Your task to perform on an android device: turn off notifications settings in the gmail app Image 0: 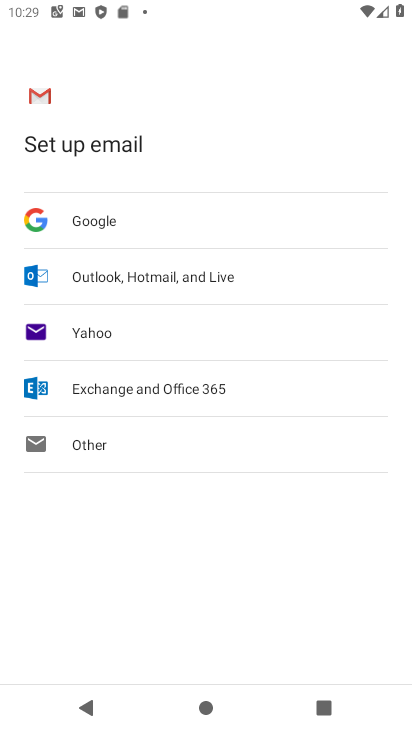
Step 0: press back button
Your task to perform on an android device: turn off notifications settings in the gmail app Image 1: 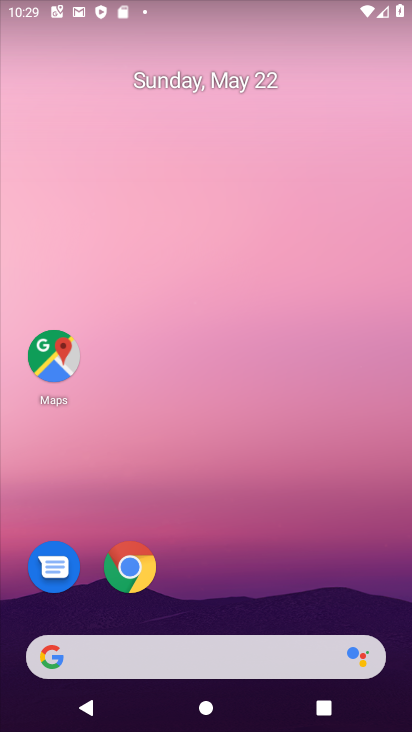
Step 1: drag from (204, 546) to (198, 41)
Your task to perform on an android device: turn off notifications settings in the gmail app Image 2: 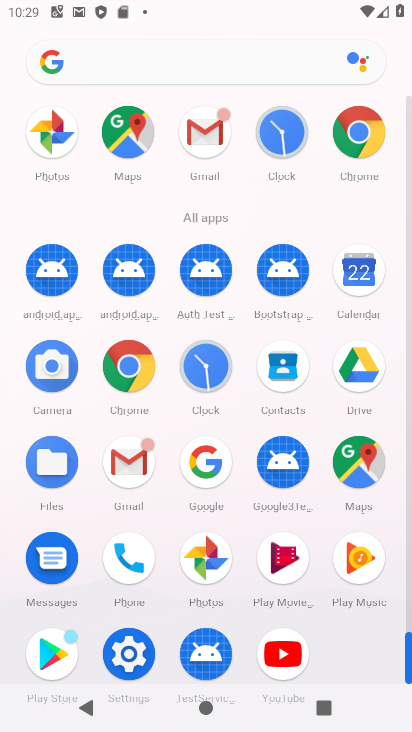
Step 2: click (127, 457)
Your task to perform on an android device: turn off notifications settings in the gmail app Image 3: 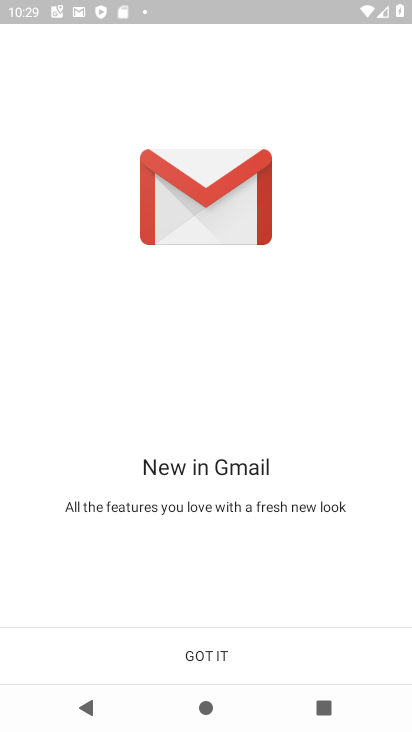
Step 3: click (193, 637)
Your task to perform on an android device: turn off notifications settings in the gmail app Image 4: 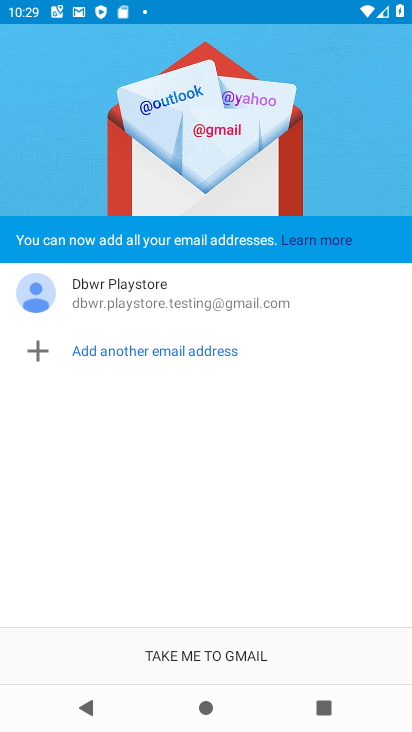
Step 4: click (212, 661)
Your task to perform on an android device: turn off notifications settings in the gmail app Image 5: 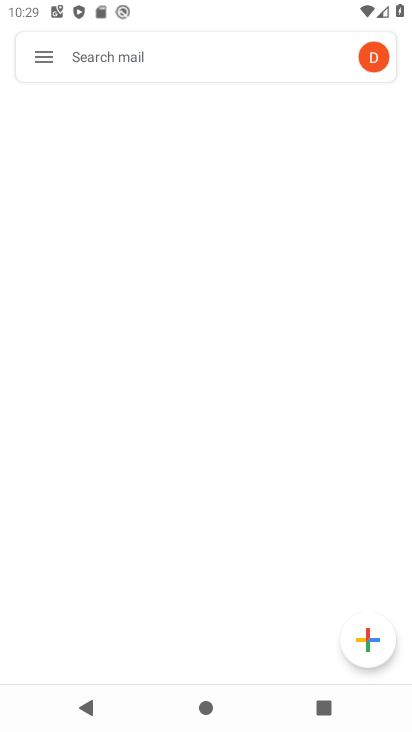
Step 5: click (45, 53)
Your task to perform on an android device: turn off notifications settings in the gmail app Image 6: 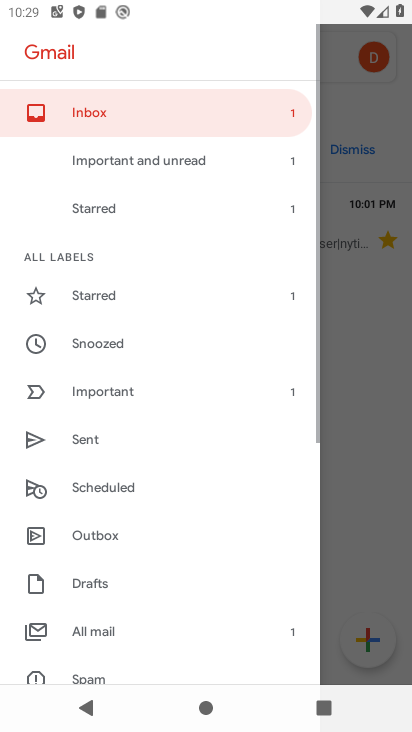
Step 6: drag from (156, 629) to (227, 112)
Your task to perform on an android device: turn off notifications settings in the gmail app Image 7: 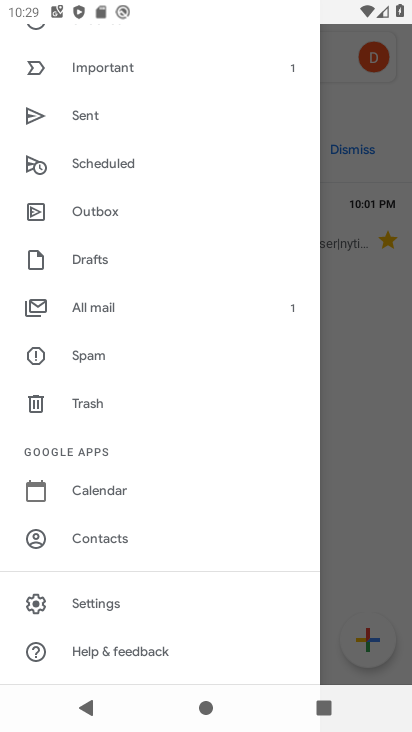
Step 7: click (118, 599)
Your task to perform on an android device: turn off notifications settings in the gmail app Image 8: 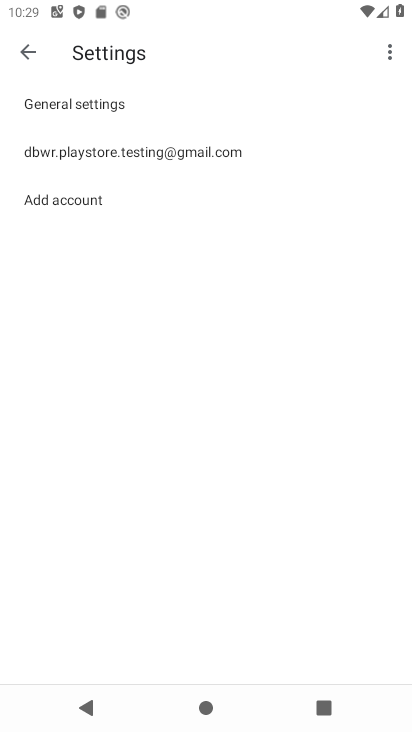
Step 8: click (165, 151)
Your task to perform on an android device: turn off notifications settings in the gmail app Image 9: 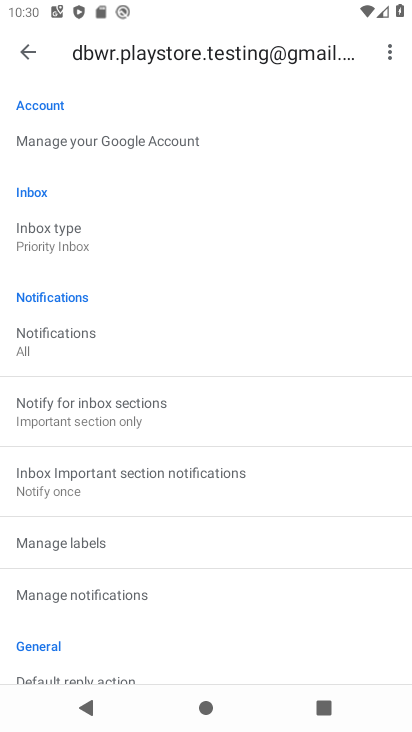
Step 9: drag from (210, 606) to (235, 175)
Your task to perform on an android device: turn off notifications settings in the gmail app Image 10: 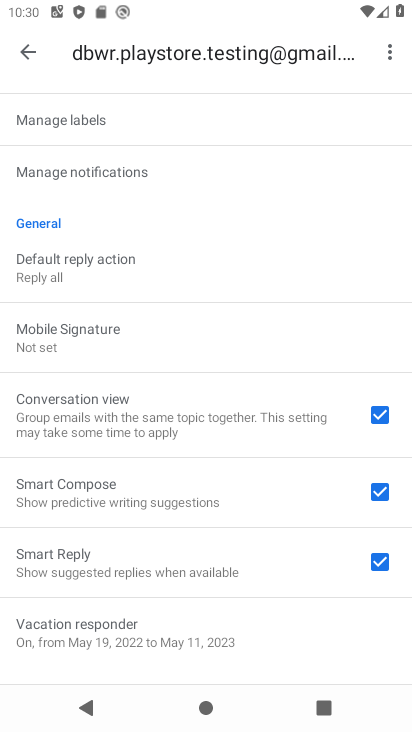
Step 10: drag from (176, 176) to (185, 622)
Your task to perform on an android device: turn off notifications settings in the gmail app Image 11: 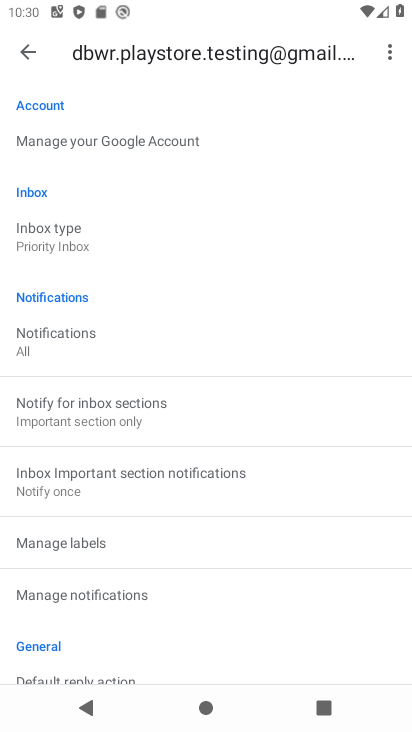
Step 11: click (112, 581)
Your task to perform on an android device: turn off notifications settings in the gmail app Image 12: 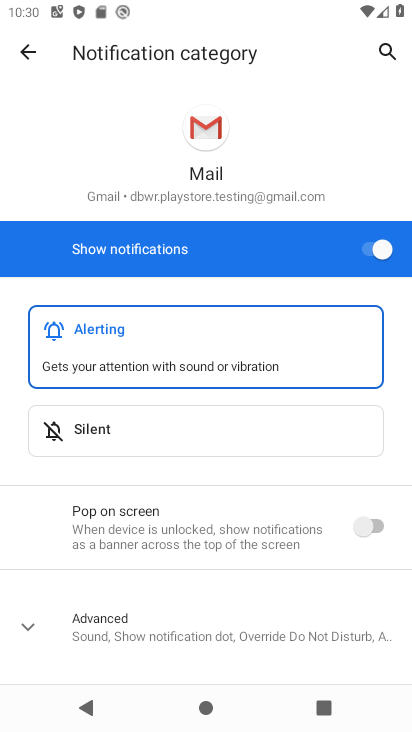
Step 12: click (374, 246)
Your task to perform on an android device: turn off notifications settings in the gmail app Image 13: 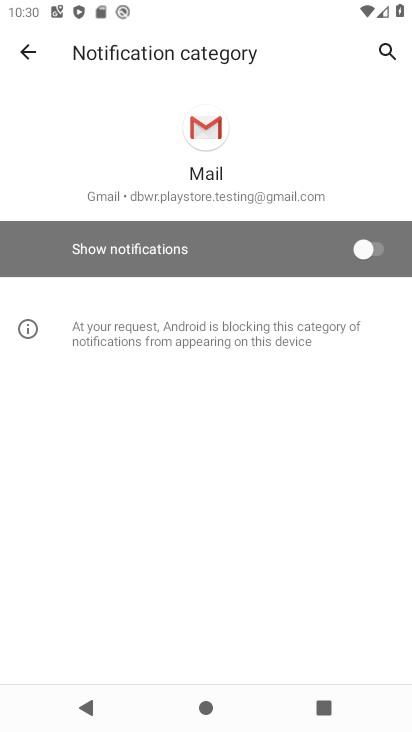
Step 13: task complete